Your task to perform on an android device: Open Google Chrome Image 0: 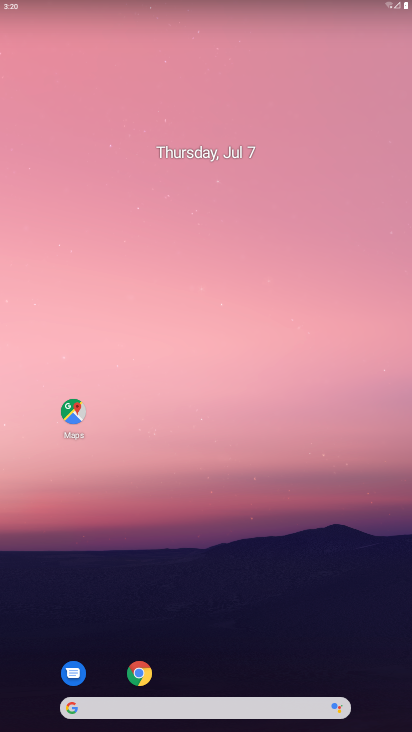
Step 0: click (136, 673)
Your task to perform on an android device: Open Google Chrome Image 1: 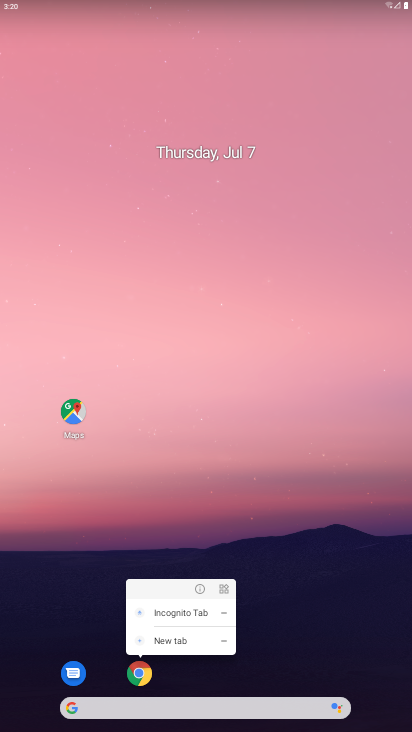
Step 1: click (146, 668)
Your task to perform on an android device: Open Google Chrome Image 2: 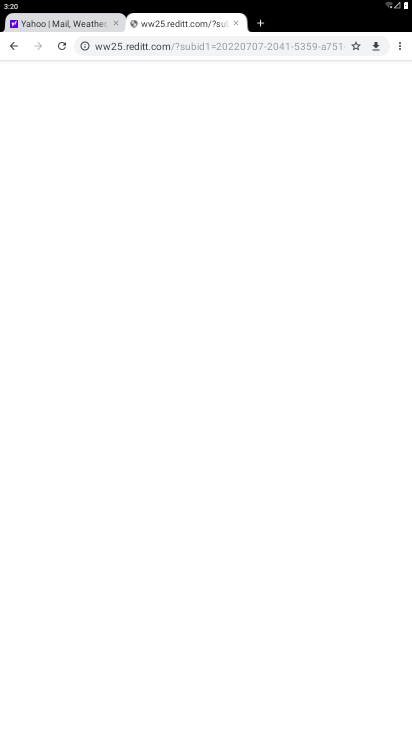
Step 2: click (235, 21)
Your task to perform on an android device: Open Google Chrome Image 3: 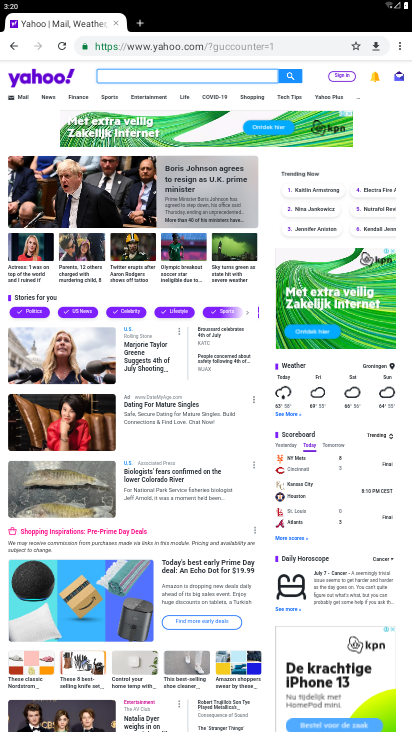
Step 3: task complete